Your task to perform on an android device: Go to Wikipedia Image 0: 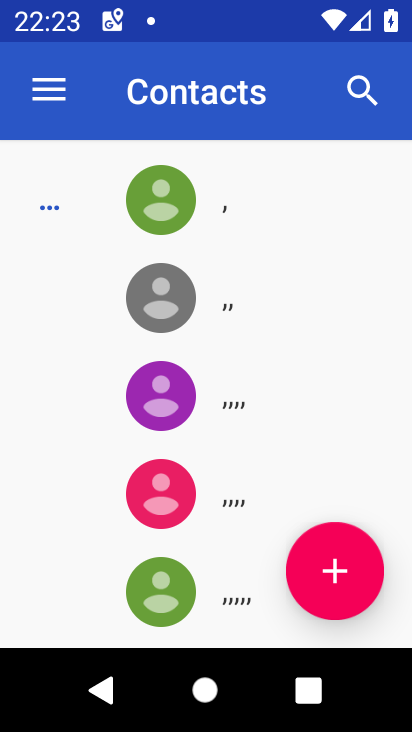
Step 0: press home button
Your task to perform on an android device: Go to Wikipedia Image 1: 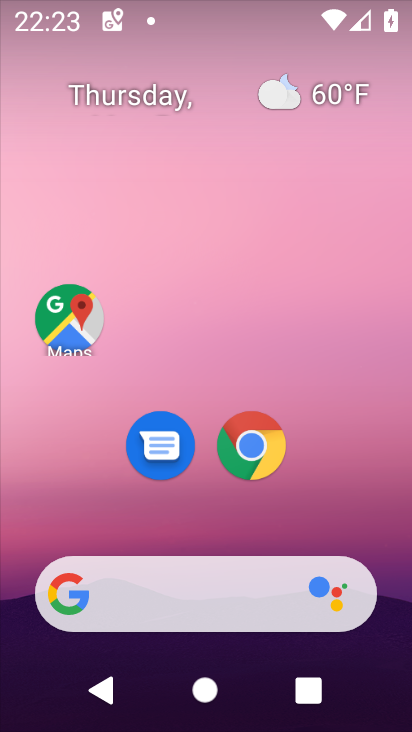
Step 1: click (255, 464)
Your task to perform on an android device: Go to Wikipedia Image 2: 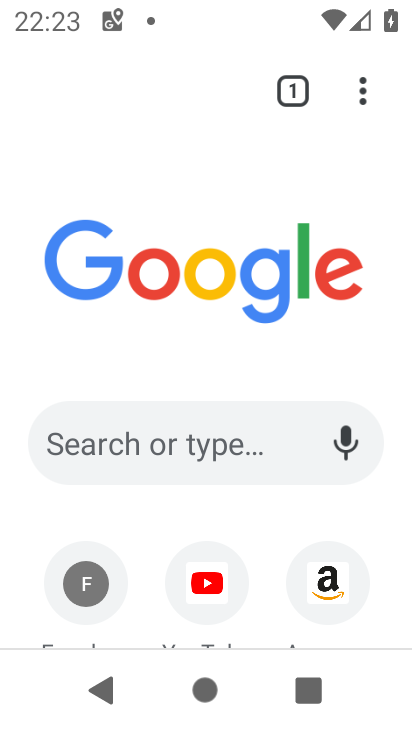
Step 2: drag from (272, 544) to (249, 153)
Your task to perform on an android device: Go to Wikipedia Image 3: 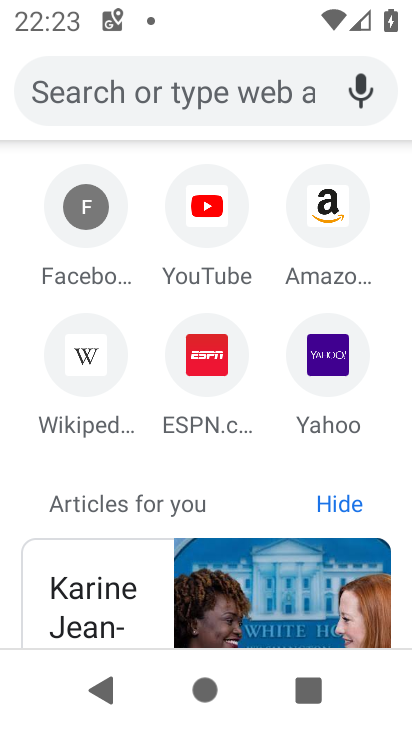
Step 3: click (102, 375)
Your task to perform on an android device: Go to Wikipedia Image 4: 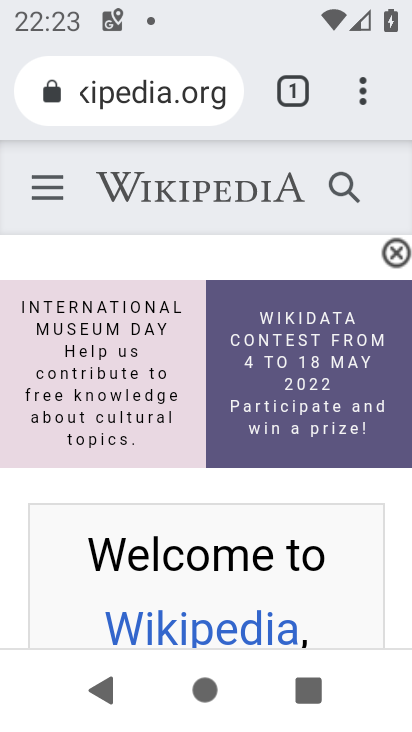
Step 4: task complete